Your task to perform on an android device: Open privacy settings Image 0: 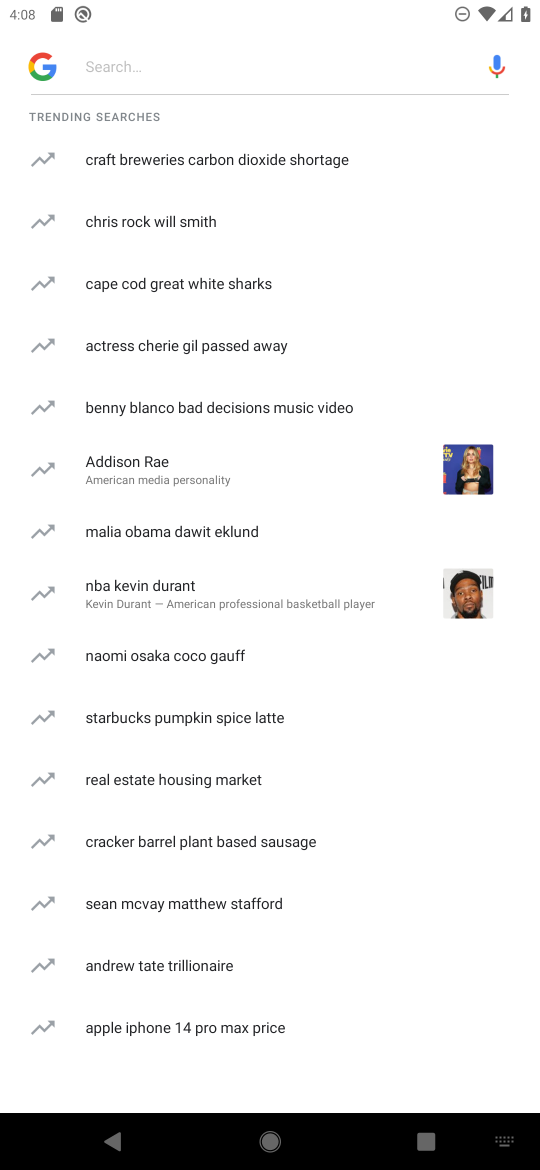
Step 0: press home button
Your task to perform on an android device: Open privacy settings Image 1: 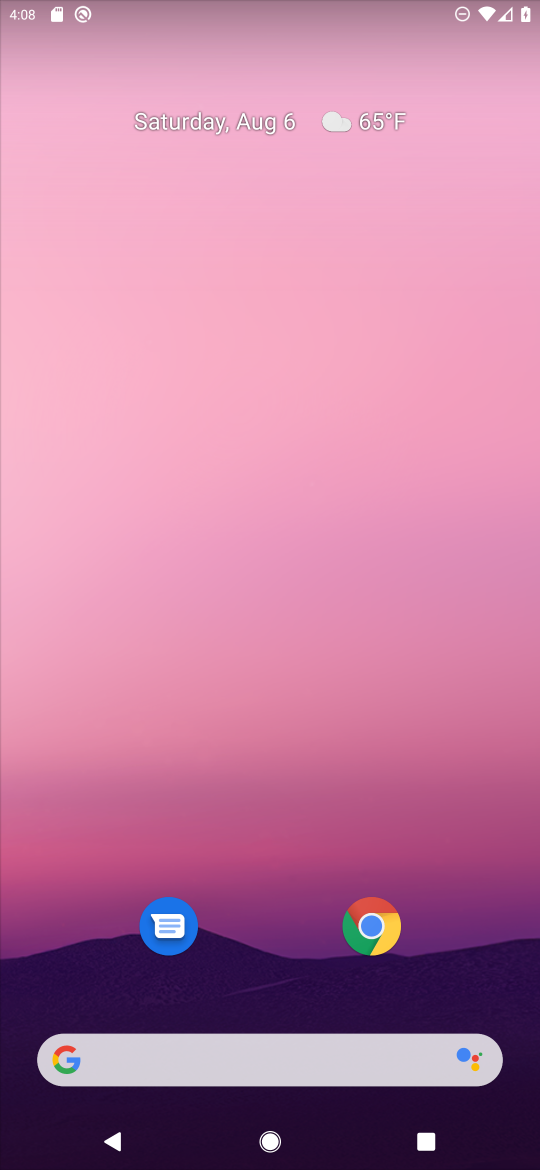
Step 1: drag from (259, 963) to (262, 270)
Your task to perform on an android device: Open privacy settings Image 2: 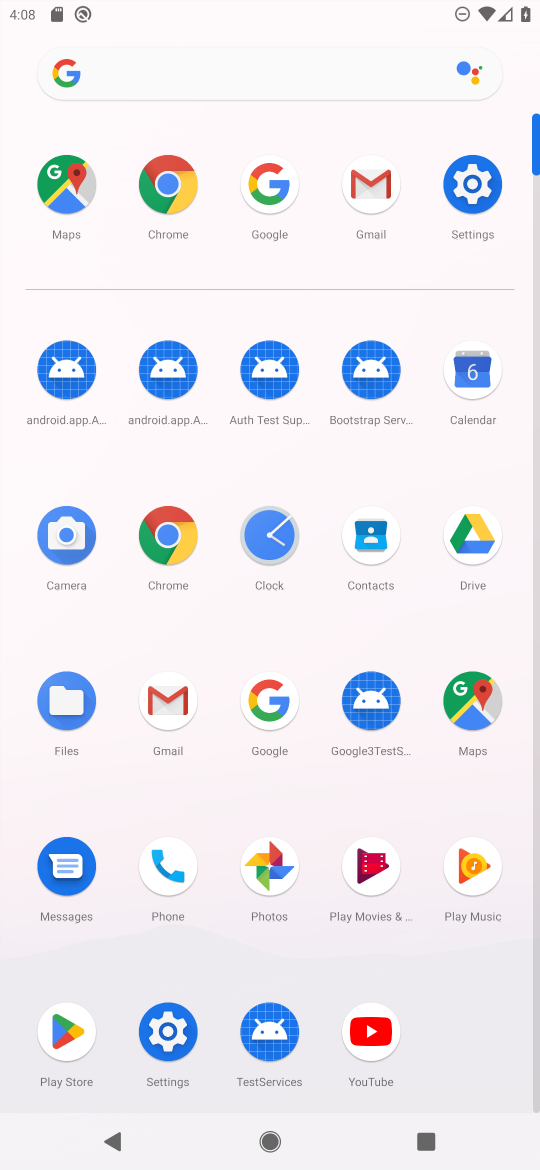
Step 2: click (452, 206)
Your task to perform on an android device: Open privacy settings Image 3: 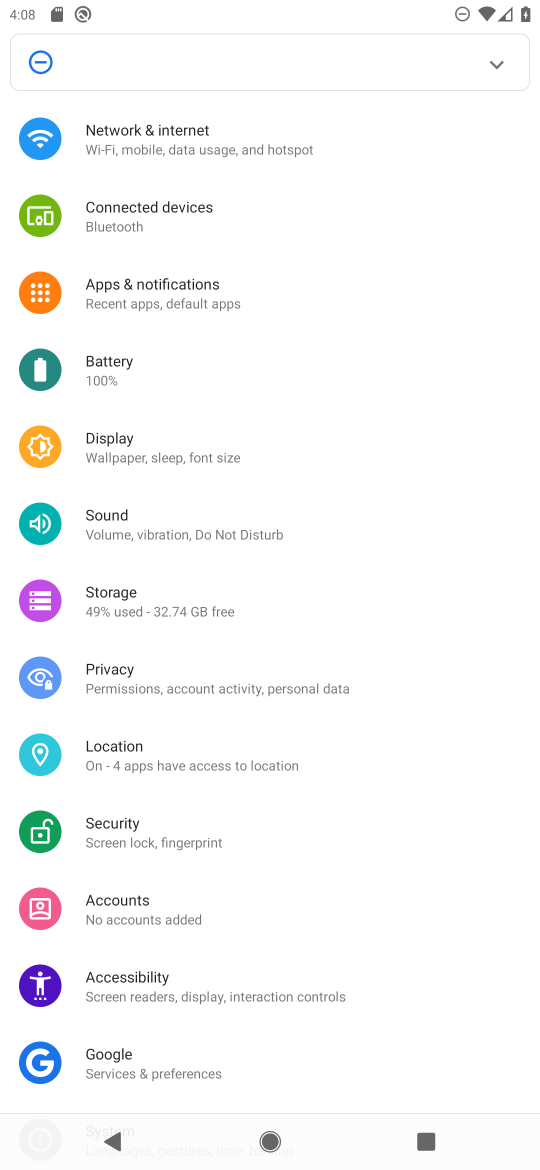
Step 3: click (146, 696)
Your task to perform on an android device: Open privacy settings Image 4: 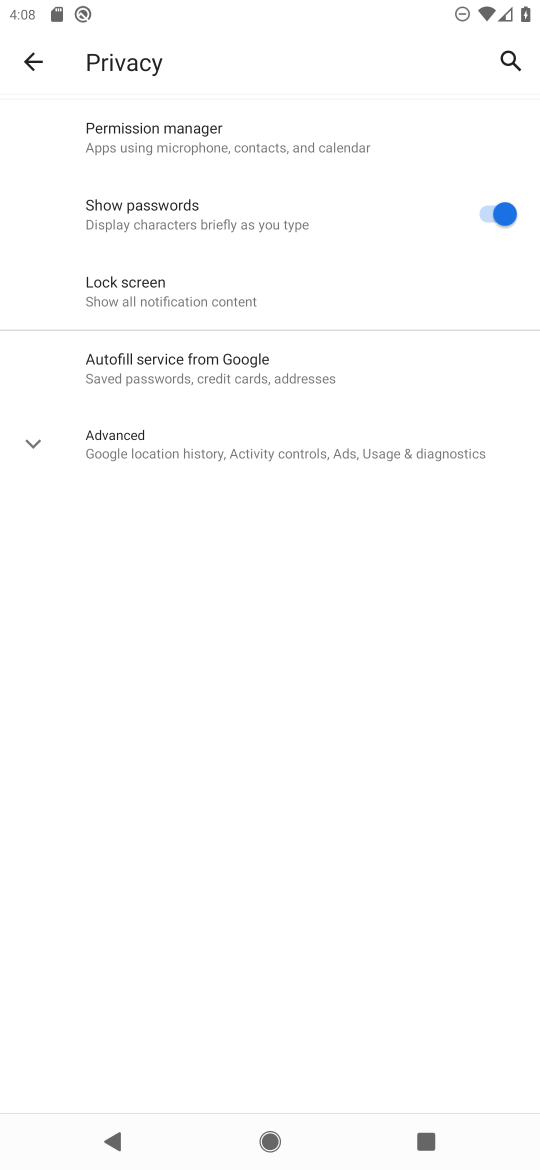
Step 4: task complete